Your task to perform on an android device: turn on priority inbox in the gmail app Image 0: 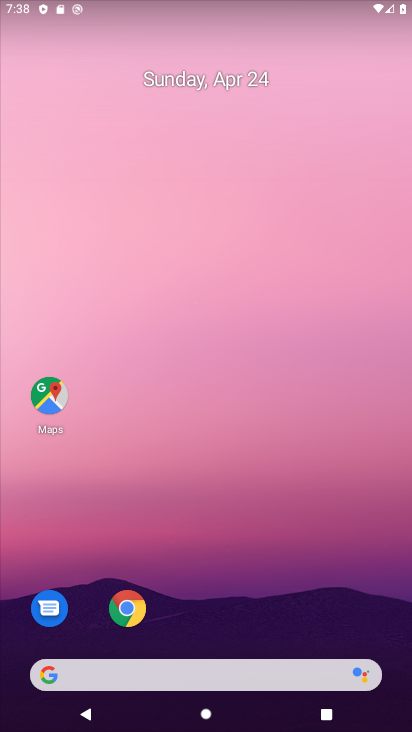
Step 0: drag from (272, 541) to (301, 105)
Your task to perform on an android device: turn on priority inbox in the gmail app Image 1: 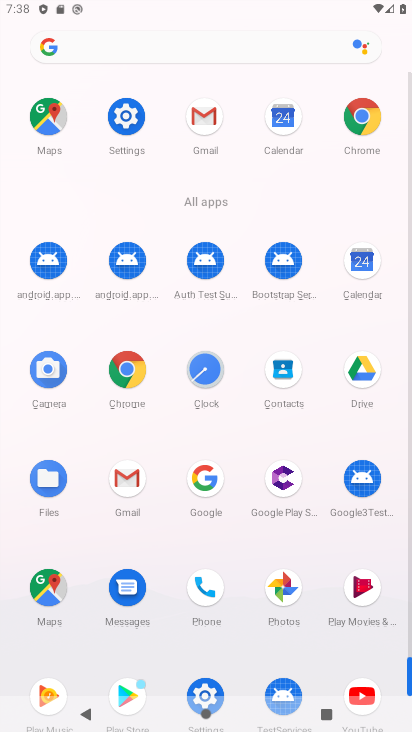
Step 1: click (211, 115)
Your task to perform on an android device: turn on priority inbox in the gmail app Image 2: 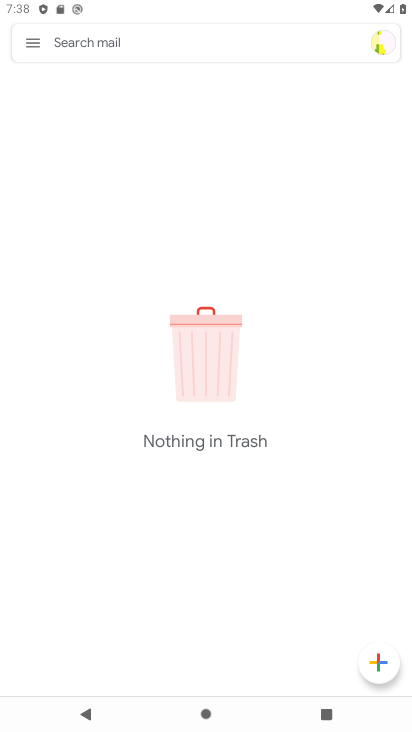
Step 2: click (34, 44)
Your task to perform on an android device: turn on priority inbox in the gmail app Image 3: 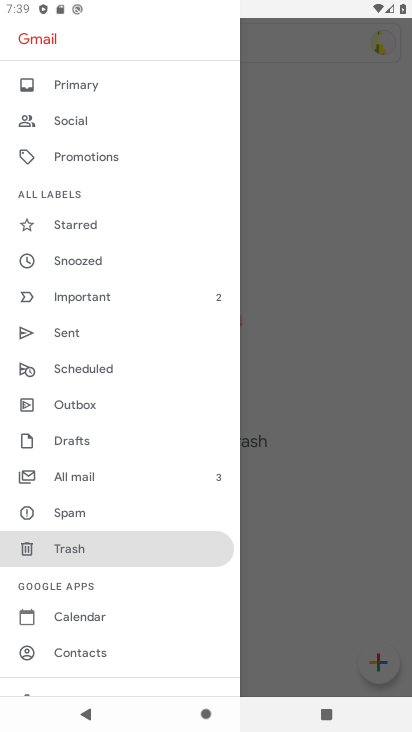
Step 3: drag from (148, 619) to (160, 208)
Your task to perform on an android device: turn on priority inbox in the gmail app Image 4: 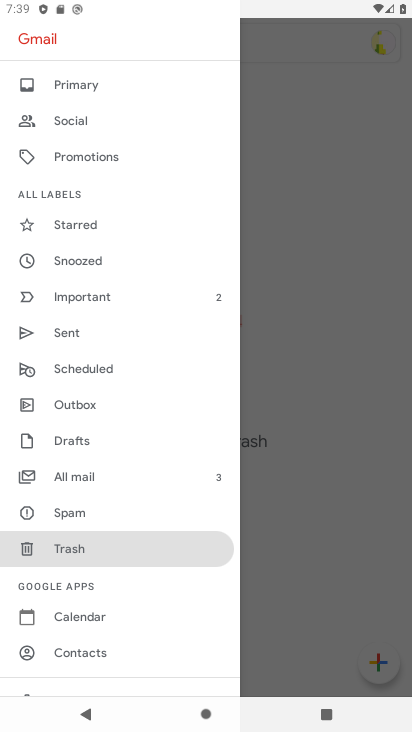
Step 4: drag from (150, 618) to (179, 299)
Your task to perform on an android device: turn on priority inbox in the gmail app Image 5: 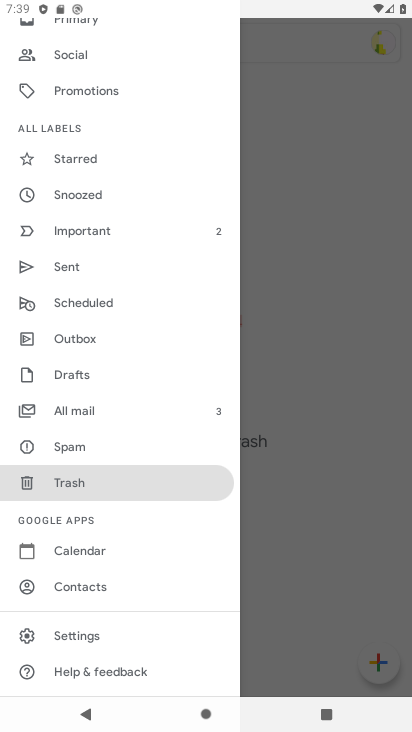
Step 5: click (101, 635)
Your task to perform on an android device: turn on priority inbox in the gmail app Image 6: 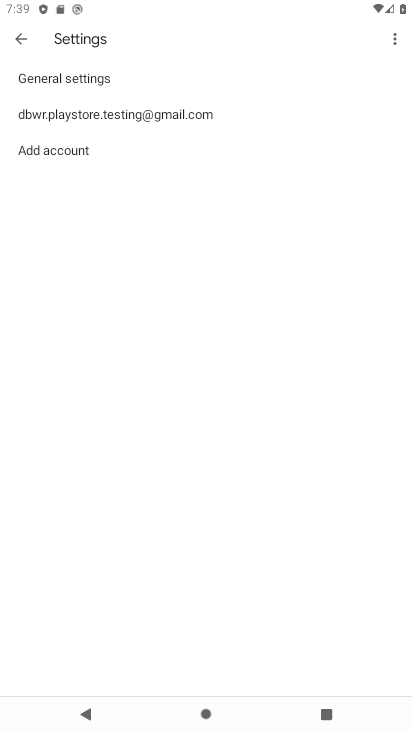
Step 6: click (189, 112)
Your task to perform on an android device: turn on priority inbox in the gmail app Image 7: 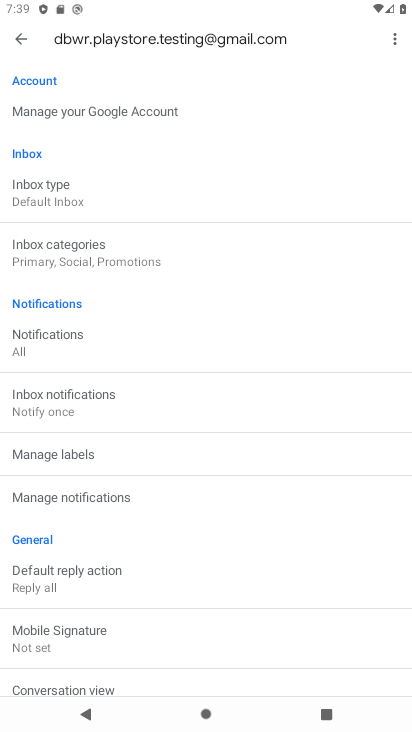
Step 7: click (65, 192)
Your task to perform on an android device: turn on priority inbox in the gmail app Image 8: 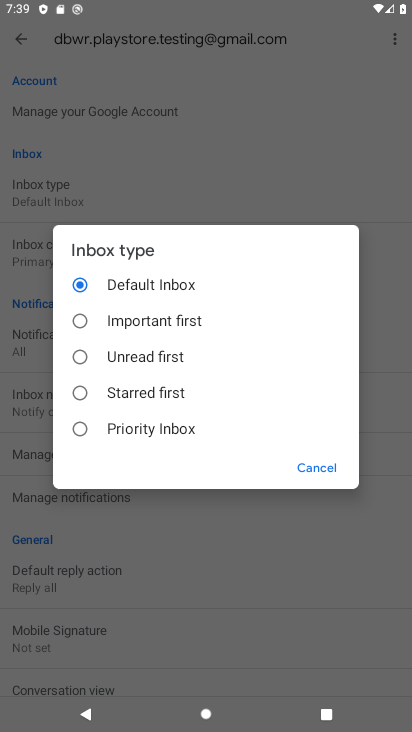
Step 8: click (81, 429)
Your task to perform on an android device: turn on priority inbox in the gmail app Image 9: 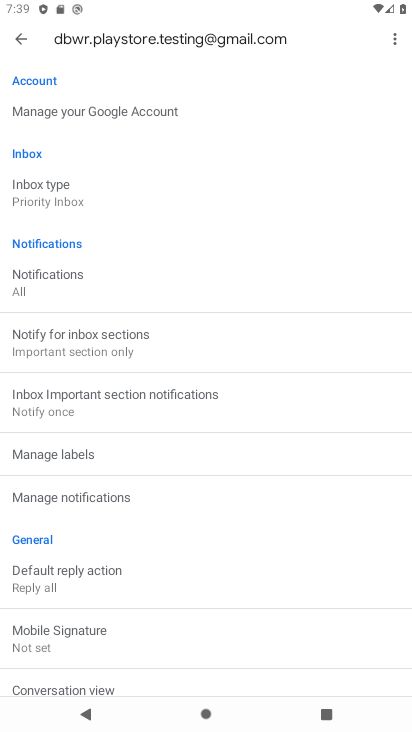
Step 9: task complete